Your task to perform on an android device: add a contact Image 0: 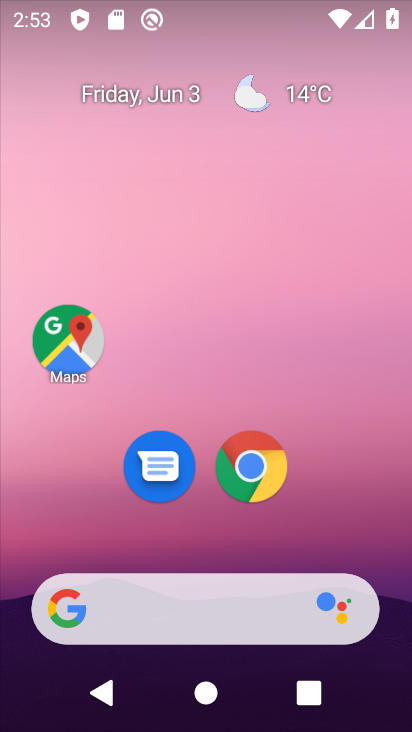
Step 0: drag from (209, 543) to (191, 52)
Your task to perform on an android device: add a contact Image 1: 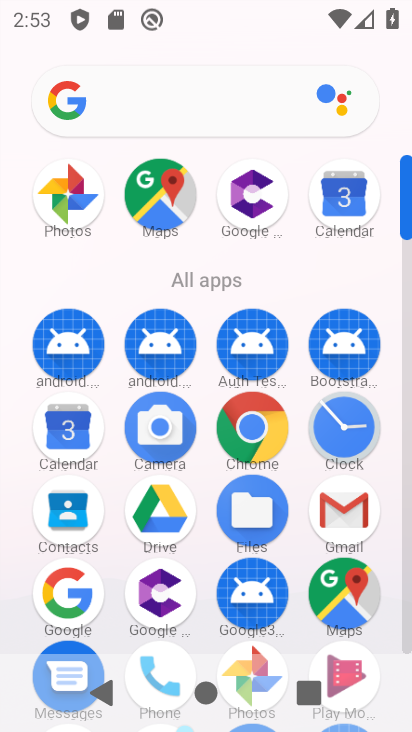
Step 1: click (67, 512)
Your task to perform on an android device: add a contact Image 2: 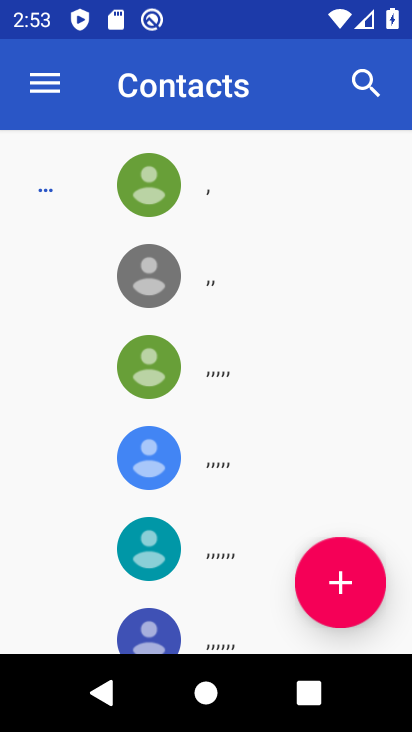
Step 2: click (322, 585)
Your task to perform on an android device: add a contact Image 3: 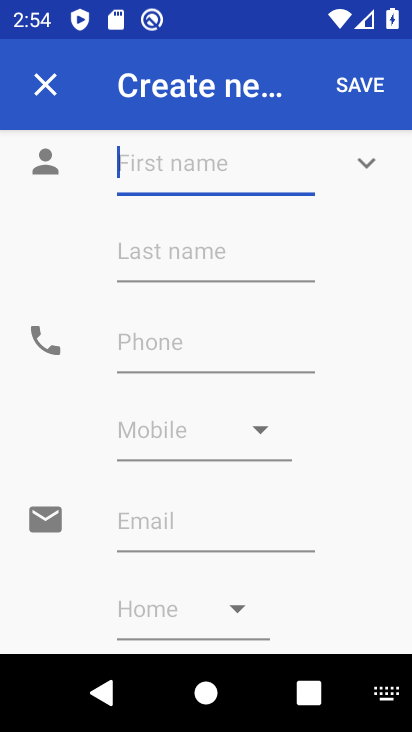
Step 3: type "hhvd"
Your task to perform on an android device: add a contact Image 4: 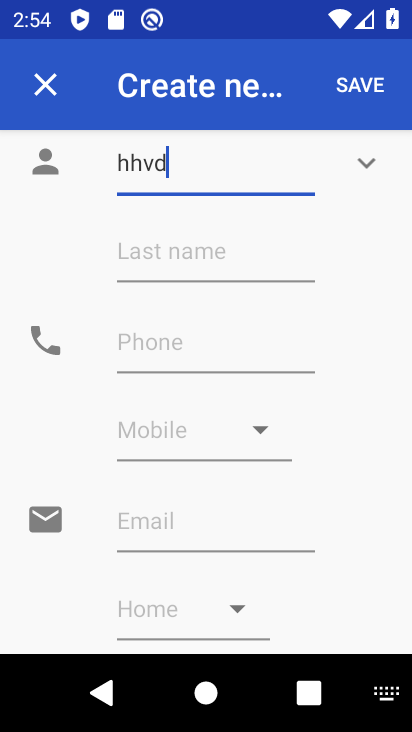
Step 4: type ""
Your task to perform on an android device: add a contact Image 5: 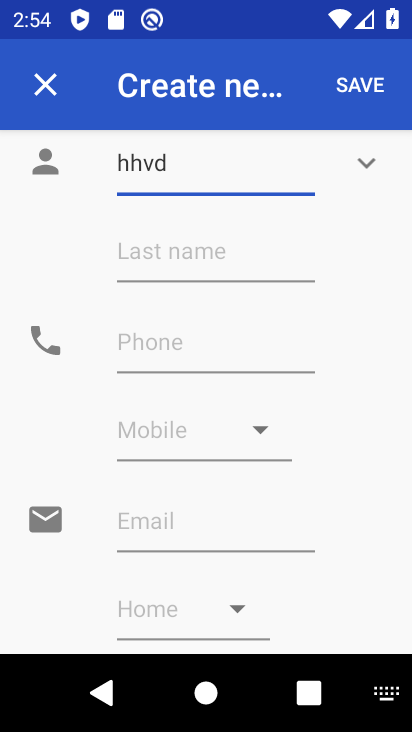
Step 5: click (356, 86)
Your task to perform on an android device: add a contact Image 6: 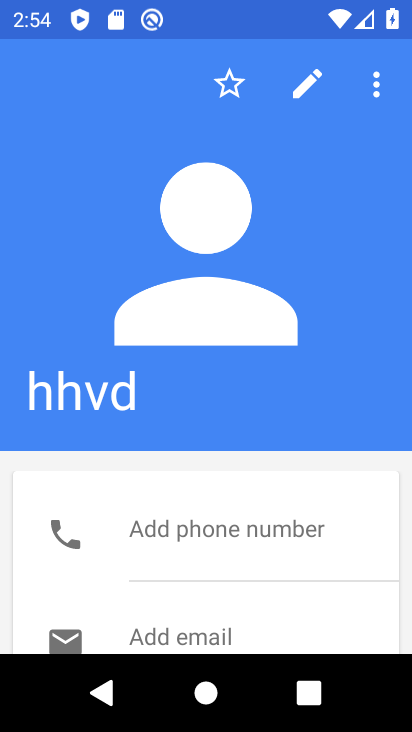
Step 6: task complete